Your task to perform on an android device: Turn off the flashlight Image 0: 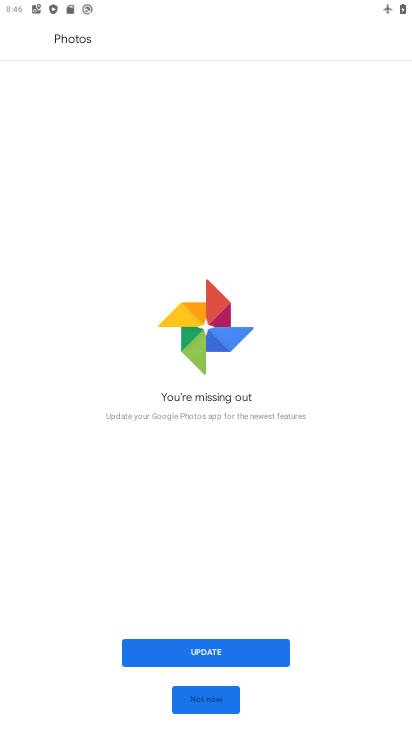
Step 0: press home button
Your task to perform on an android device: Turn off the flashlight Image 1: 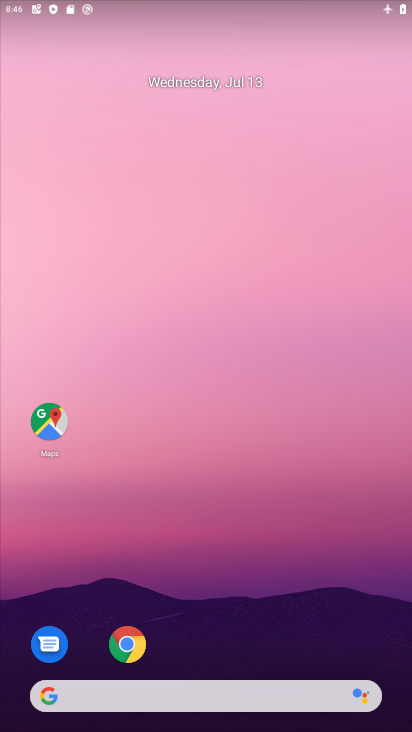
Step 1: drag from (164, 711) to (171, 199)
Your task to perform on an android device: Turn off the flashlight Image 2: 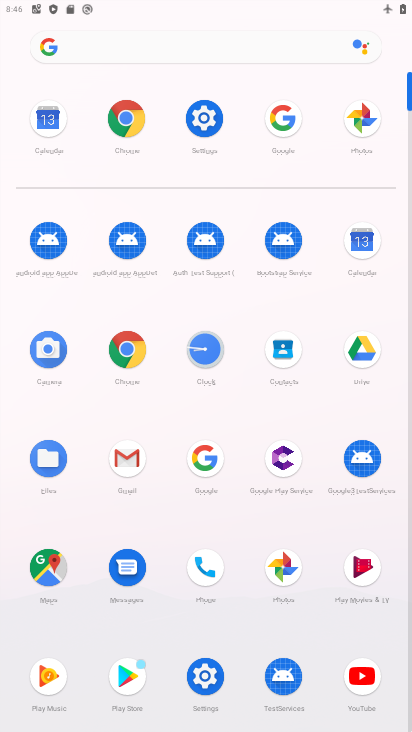
Step 2: click (204, 114)
Your task to perform on an android device: Turn off the flashlight Image 3: 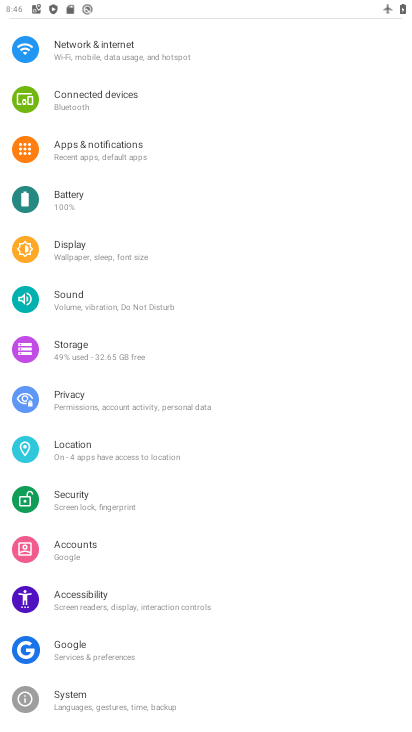
Step 3: task complete